Your task to perform on an android device: Is it going to rain today? Image 0: 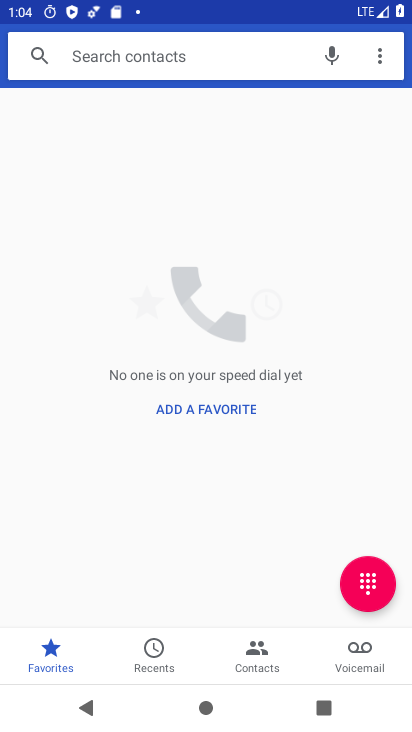
Step 0: press home button
Your task to perform on an android device: Is it going to rain today? Image 1: 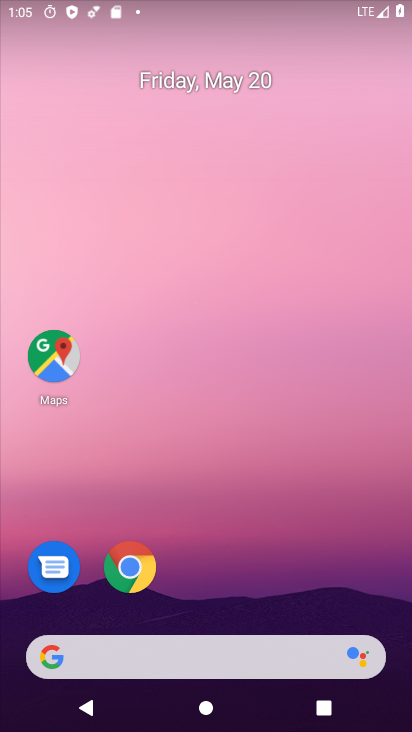
Step 1: drag from (227, 594) to (217, 157)
Your task to perform on an android device: Is it going to rain today? Image 2: 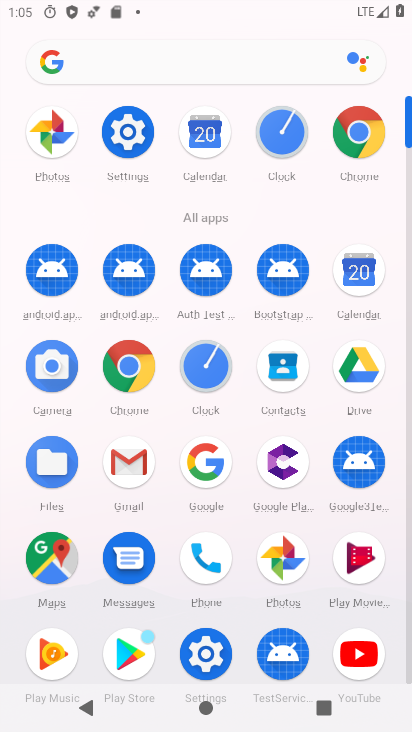
Step 2: click (350, 129)
Your task to perform on an android device: Is it going to rain today? Image 3: 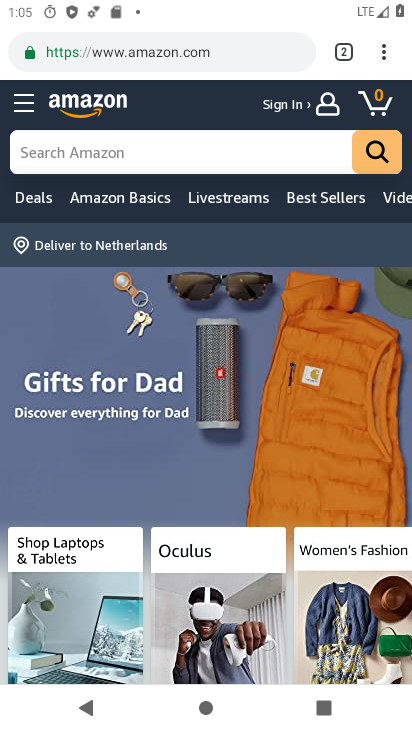
Step 3: click (169, 43)
Your task to perform on an android device: Is it going to rain today? Image 4: 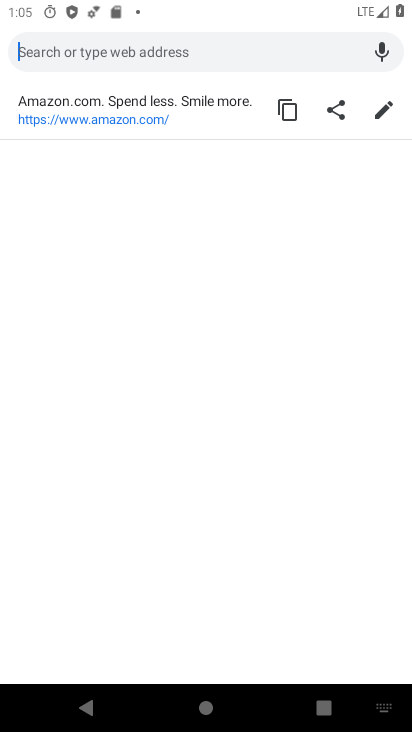
Step 4: type "Is it going to rain today?"
Your task to perform on an android device: Is it going to rain today? Image 5: 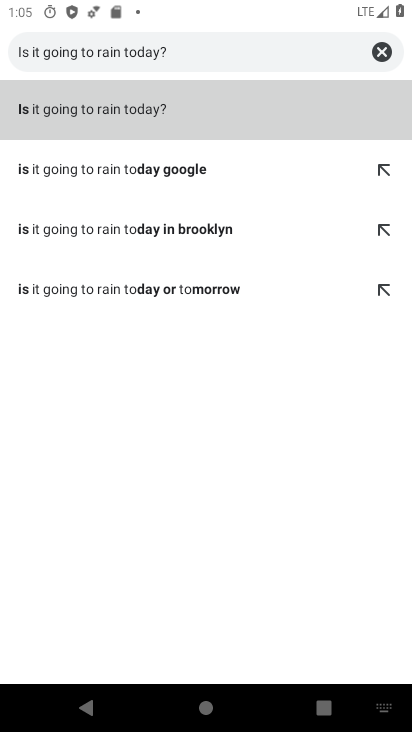
Step 5: click (170, 110)
Your task to perform on an android device: Is it going to rain today? Image 6: 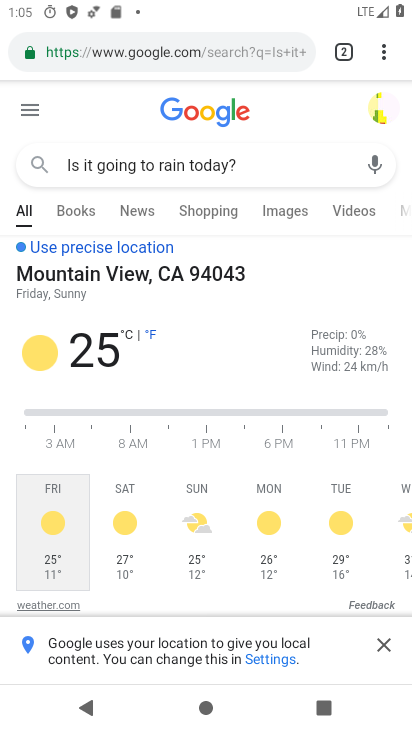
Step 6: click (389, 652)
Your task to perform on an android device: Is it going to rain today? Image 7: 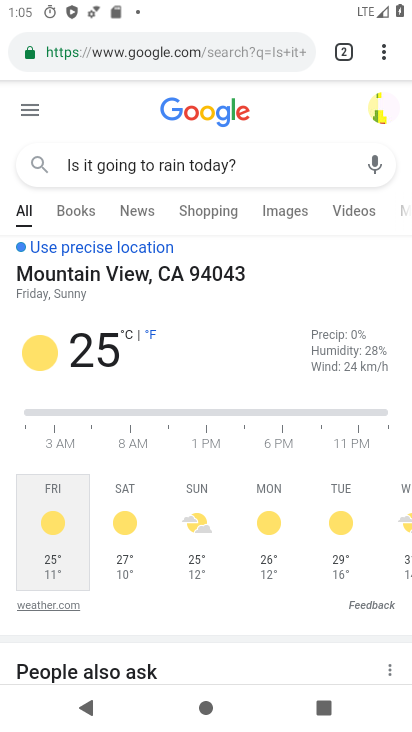
Step 7: task complete